Your task to perform on an android device: open device folders in google photos Image 0: 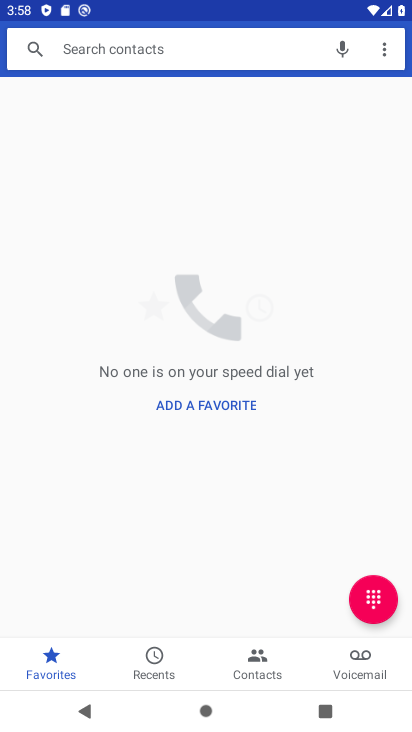
Step 0: press home button
Your task to perform on an android device: open device folders in google photos Image 1: 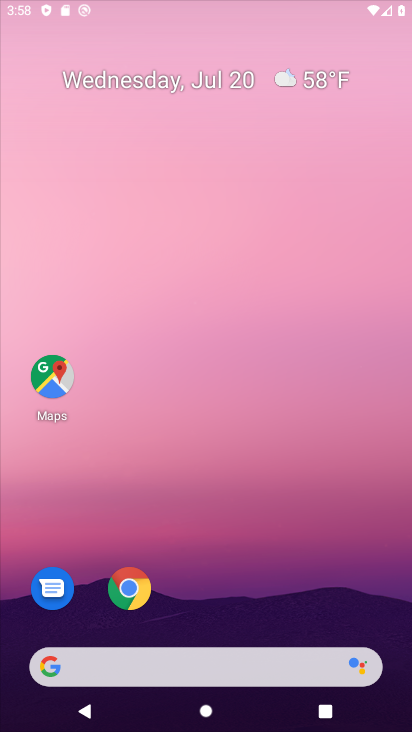
Step 1: drag from (192, 623) to (192, 151)
Your task to perform on an android device: open device folders in google photos Image 2: 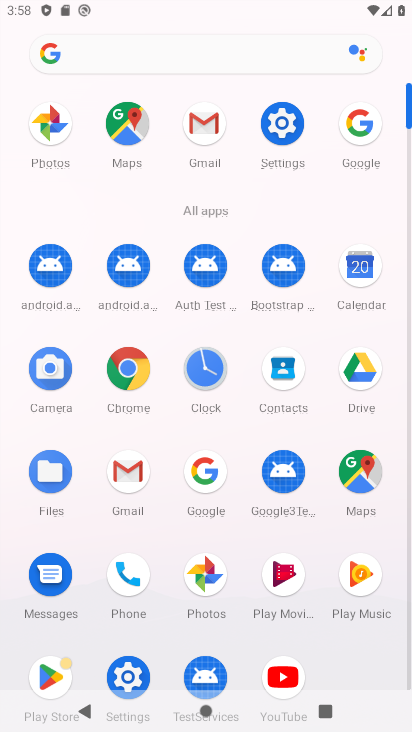
Step 2: click (191, 574)
Your task to perform on an android device: open device folders in google photos Image 3: 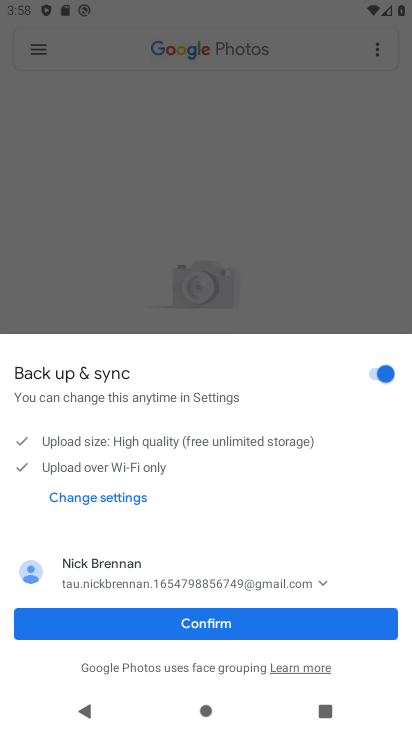
Step 3: click (157, 623)
Your task to perform on an android device: open device folders in google photos Image 4: 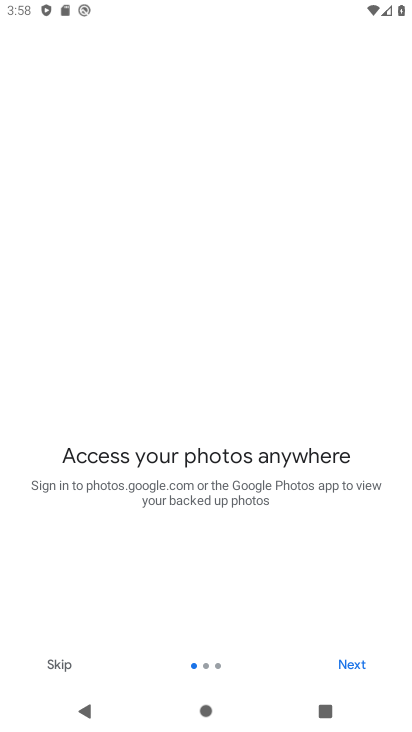
Step 4: click (366, 653)
Your task to perform on an android device: open device folders in google photos Image 5: 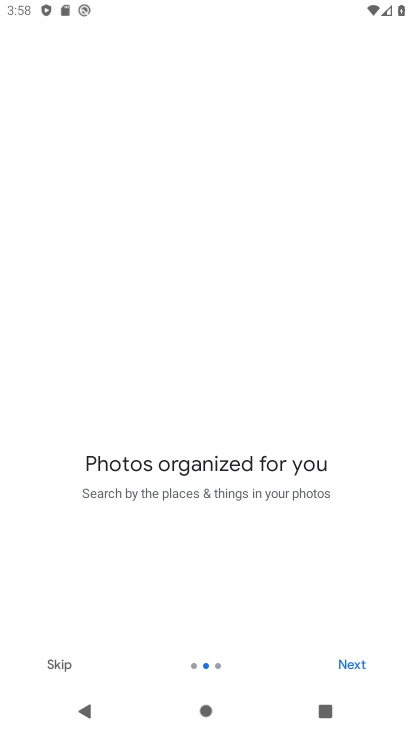
Step 5: click (366, 653)
Your task to perform on an android device: open device folders in google photos Image 6: 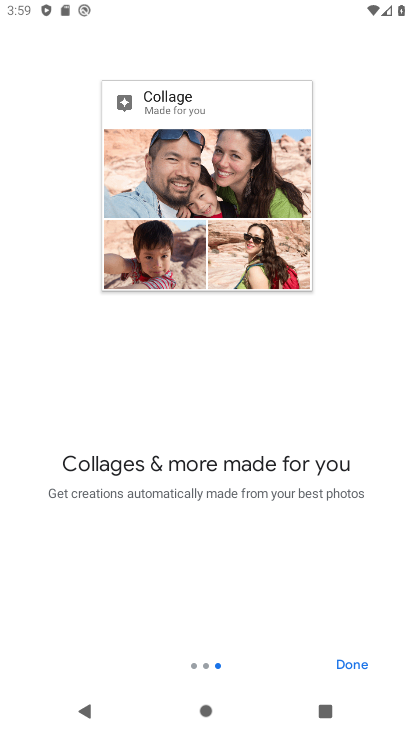
Step 6: click (341, 666)
Your task to perform on an android device: open device folders in google photos Image 7: 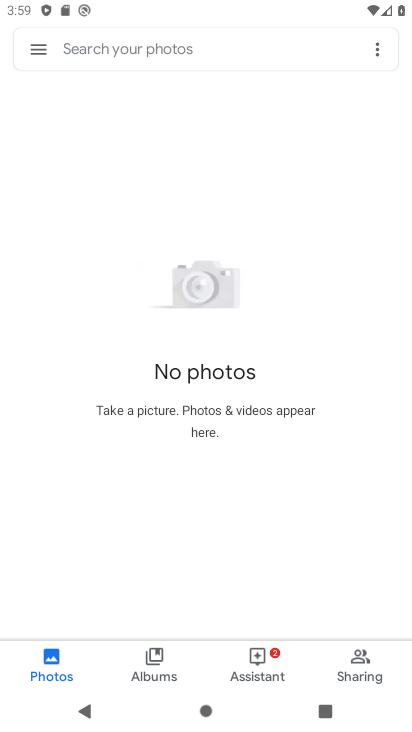
Step 7: click (50, 54)
Your task to perform on an android device: open device folders in google photos Image 8: 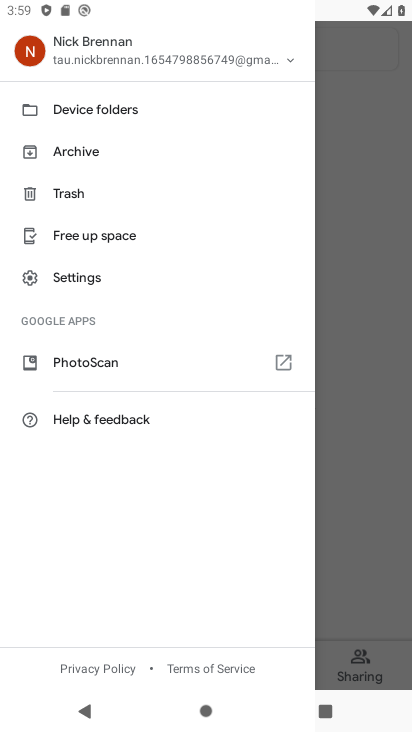
Step 8: click (89, 117)
Your task to perform on an android device: open device folders in google photos Image 9: 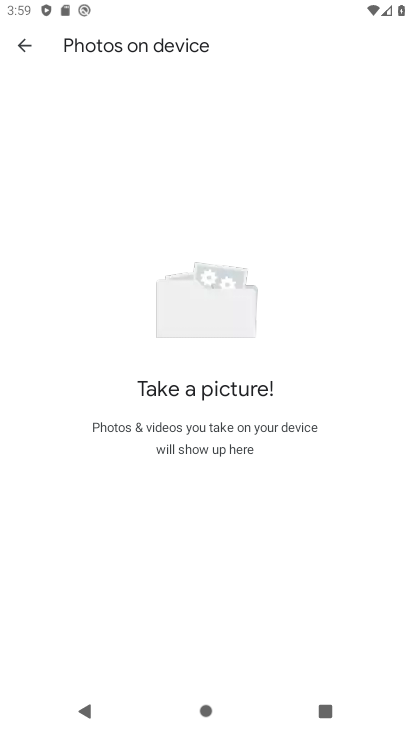
Step 9: task complete